Your task to perform on an android device: Go to Android settings Image 0: 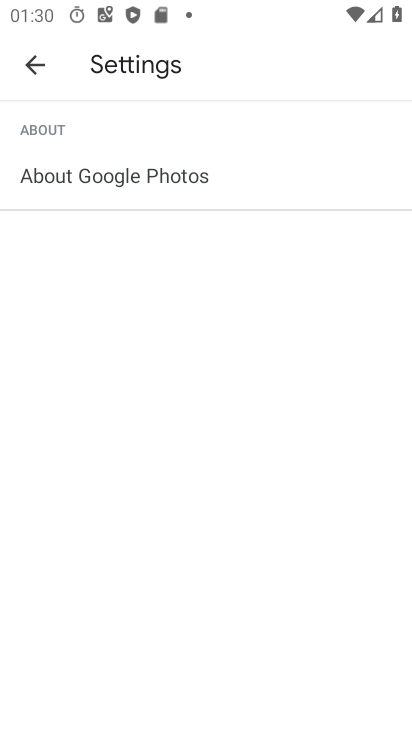
Step 0: press home button
Your task to perform on an android device: Go to Android settings Image 1: 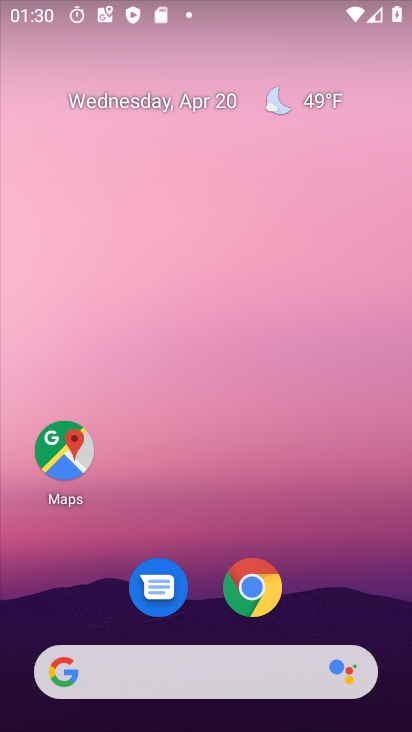
Step 1: drag from (378, 621) to (318, 8)
Your task to perform on an android device: Go to Android settings Image 2: 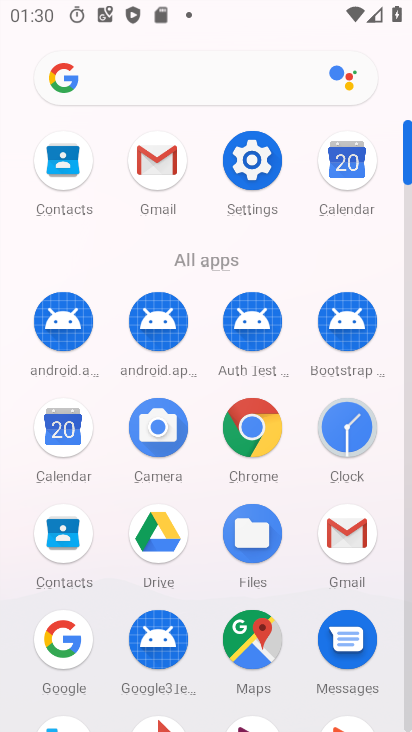
Step 2: click (244, 165)
Your task to perform on an android device: Go to Android settings Image 3: 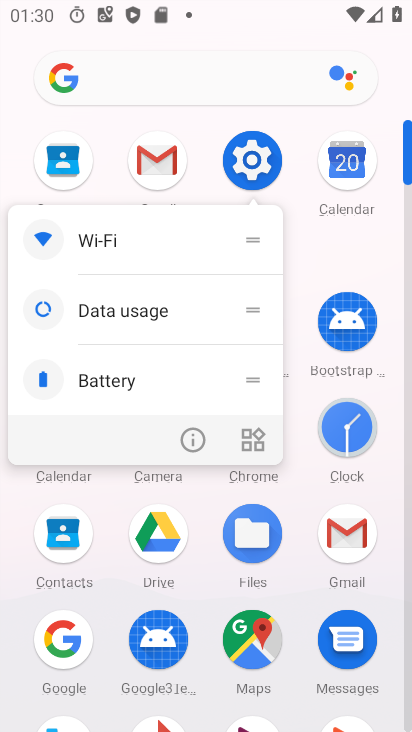
Step 3: click (251, 168)
Your task to perform on an android device: Go to Android settings Image 4: 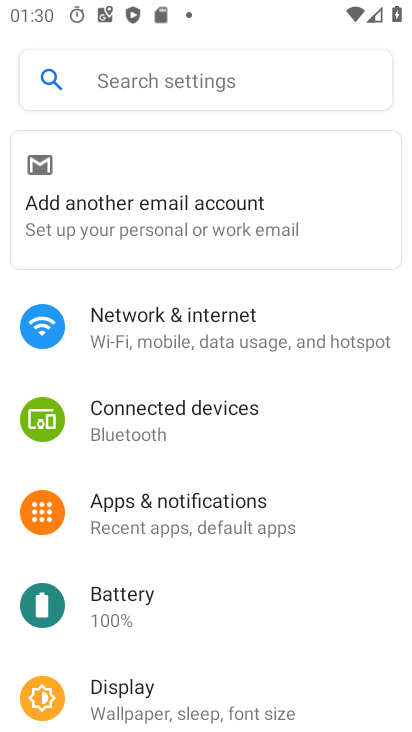
Step 4: drag from (396, 608) to (333, 97)
Your task to perform on an android device: Go to Android settings Image 5: 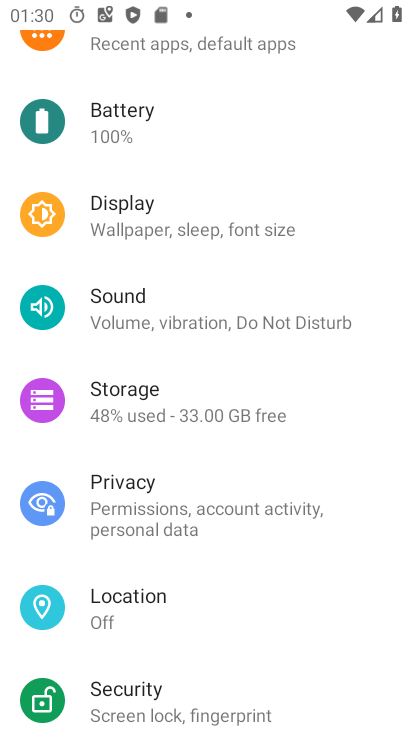
Step 5: drag from (379, 683) to (331, 34)
Your task to perform on an android device: Go to Android settings Image 6: 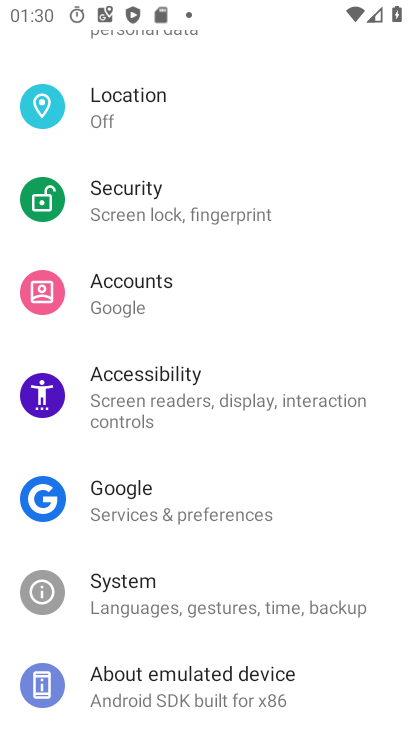
Step 6: click (156, 599)
Your task to perform on an android device: Go to Android settings Image 7: 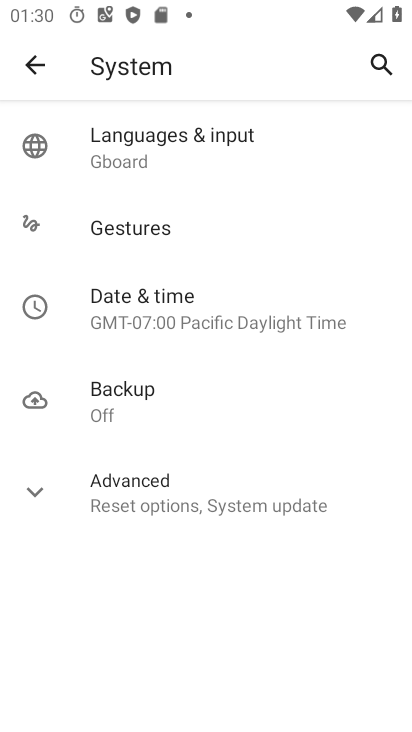
Step 7: click (40, 492)
Your task to perform on an android device: Go to Android settings Image 8: 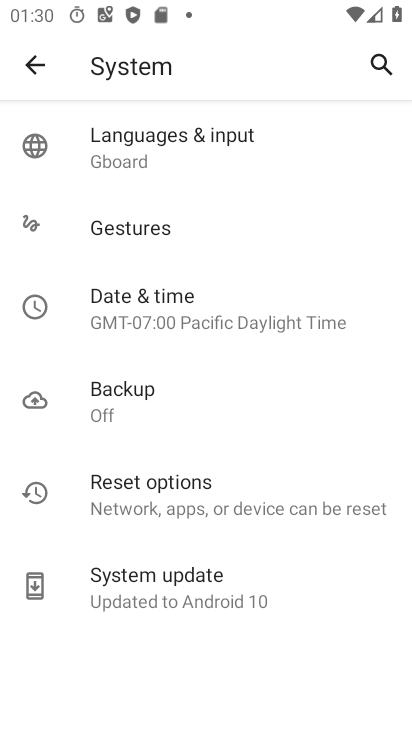
Step 8: task complete